Your task to perform on an android device: Go to display settings Image 0: 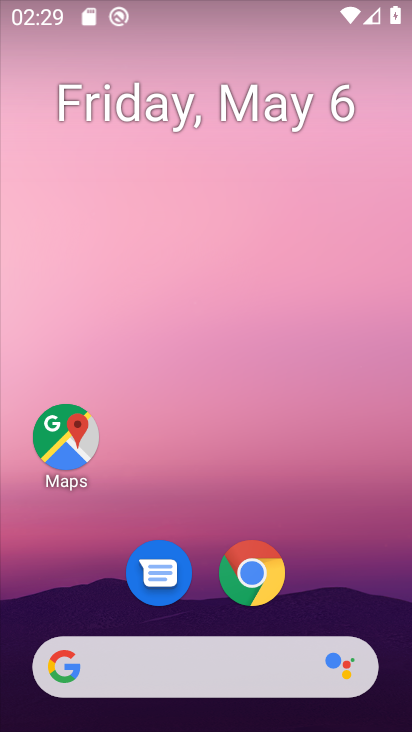
Step 0: drag from (323, 595) to (291, 208)
Your task to perform on an android device: Go to display settings Image 1: 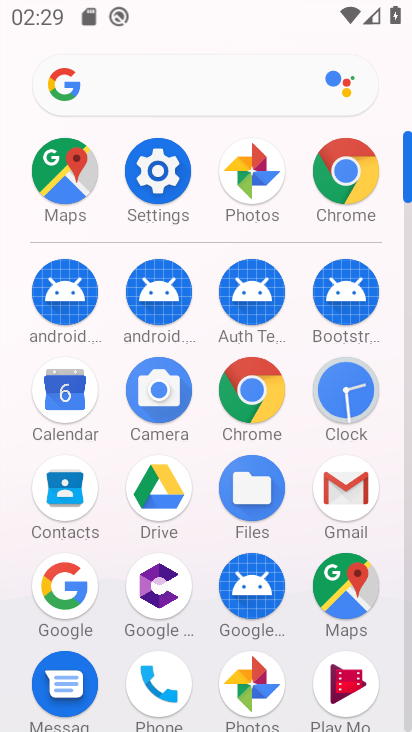
Step 1: click (138, 178)
Your task to perform on an android device: Go to display settings Image 2: 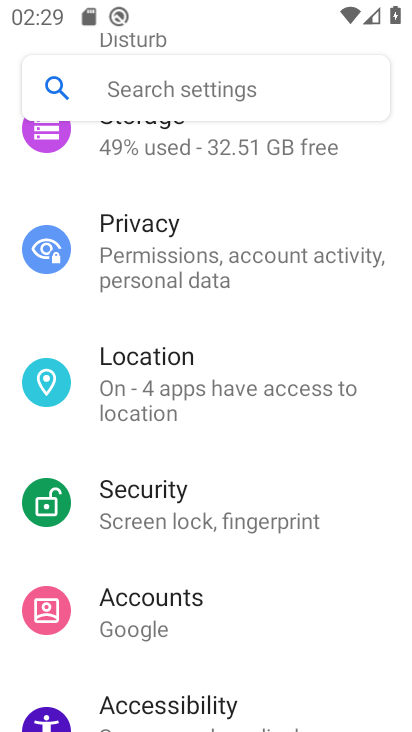
Step 2: drag from (227, 153) to (246, 461)
Your task to perform on an android device: Go to display settings Image 3: 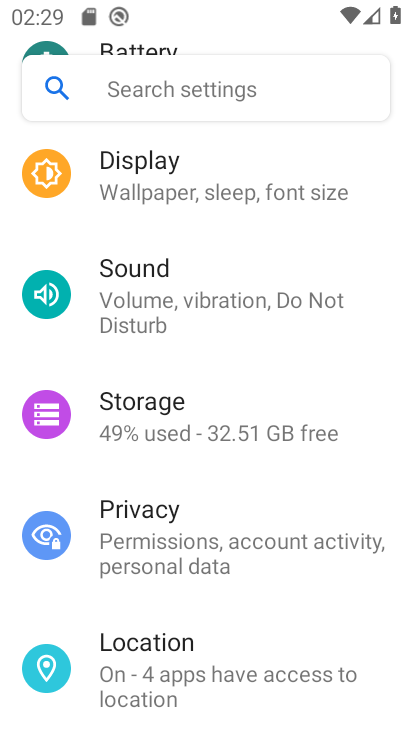
Step 3: click (183, 179)
Your task to perform on an android device: Go to display settings Image 4: 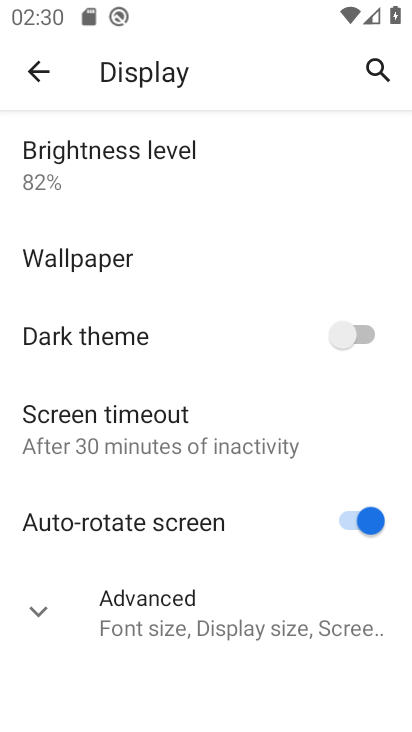
Step 4: task complete